Your task to perform on an android device: Go to wifi settings Image 0: 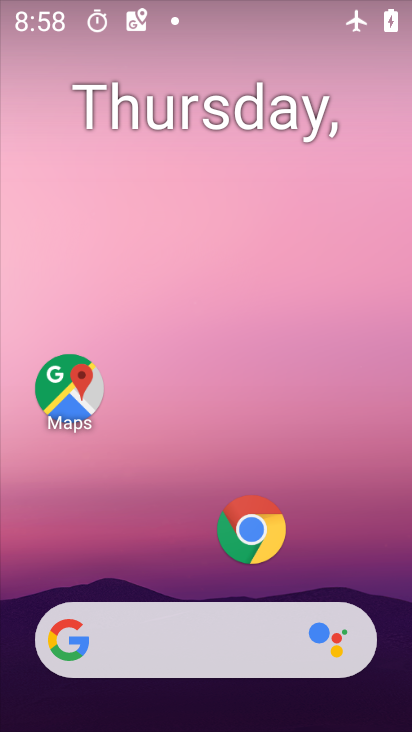
Step 0: press home button
Your task to perform on an android device: Go to wifi settings Image 1: 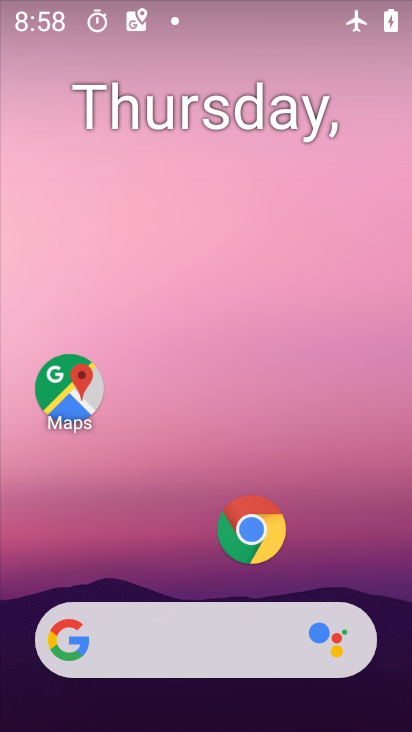
Step 1: drag from (195, 583) to (198, 22)
Your task to perform on an android device: Go to wifi settings Image 2: 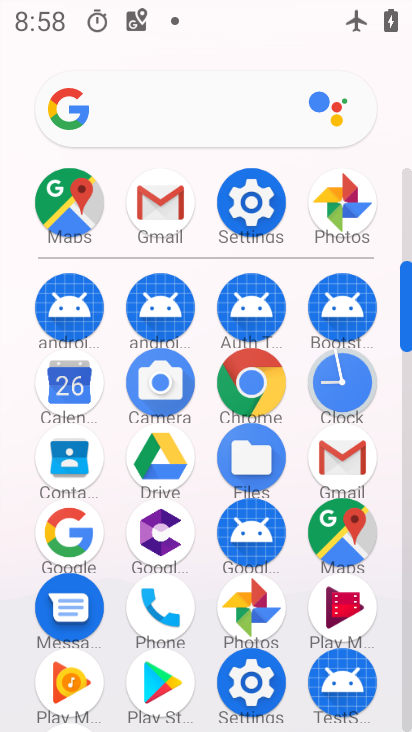
Step 2: click (249, 195)
Your task to perform on an android device: Go to wifi settings Image 3: 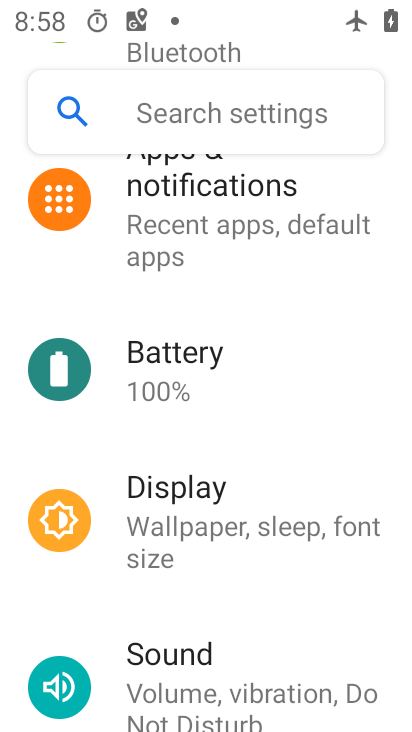
Step 3: drag from (109, 186) to (116, 715)
Your task to perform on an android device: Go to wifi settings Image 4: 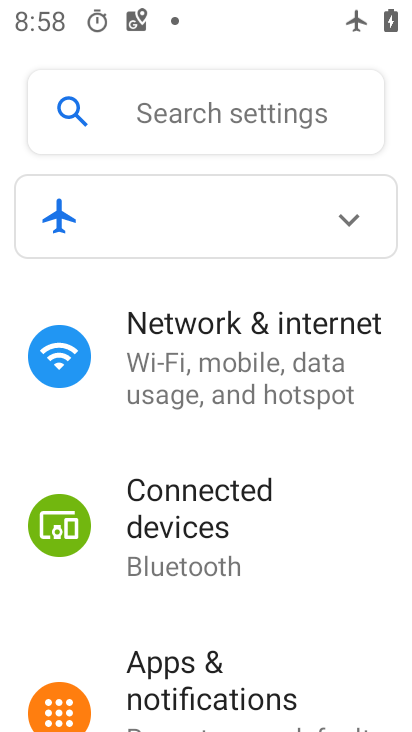
Step 4: click (114, 340)
Your task to perform on an android device: Go to wifi settings Image 5: 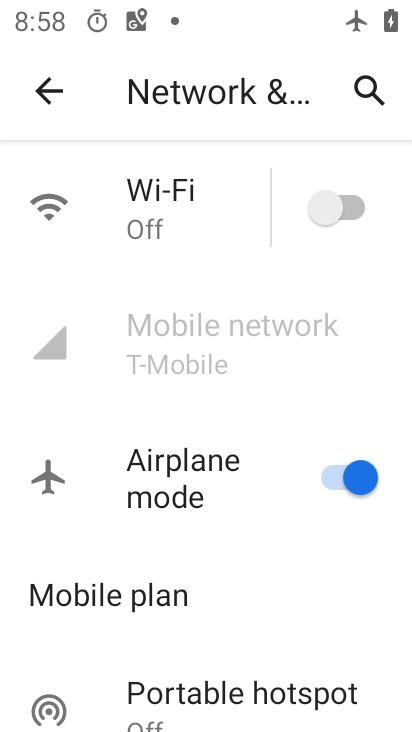
Step 5: click (224, 201)
Your task to perform on an android device: Go to wifi settings Image 6: 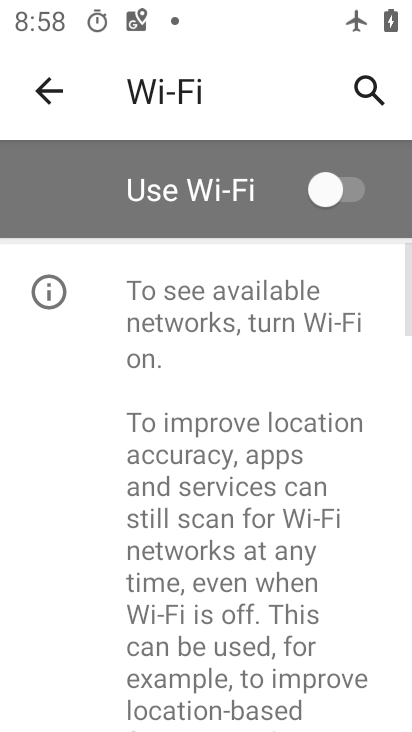
Step 6: click (357, 185)
Your task to perform on an android device: Go to wifi settings Image 7: 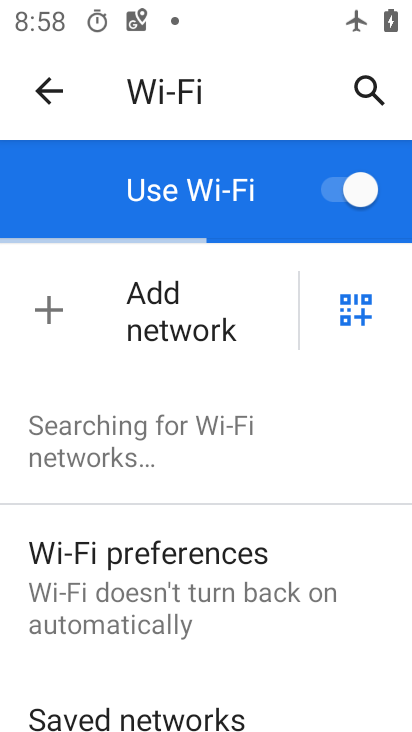
Step 7: task complete